Your task to perform on an android device: Go to display settings Image 0: 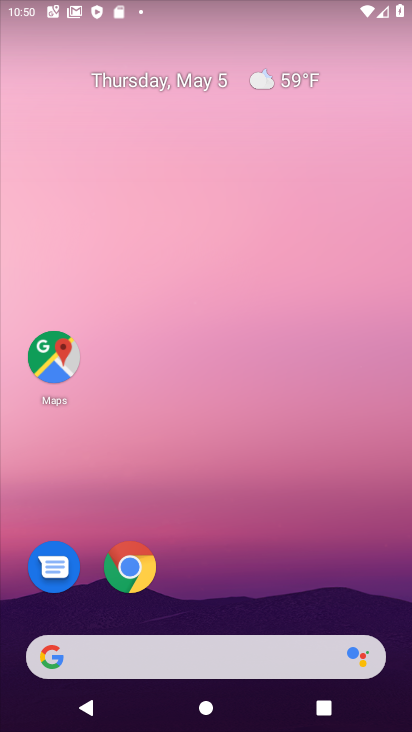
Step 0: drag from (192, 598) to (37, 89)
Your task to perform on an android device: Go to display settings Image 1: 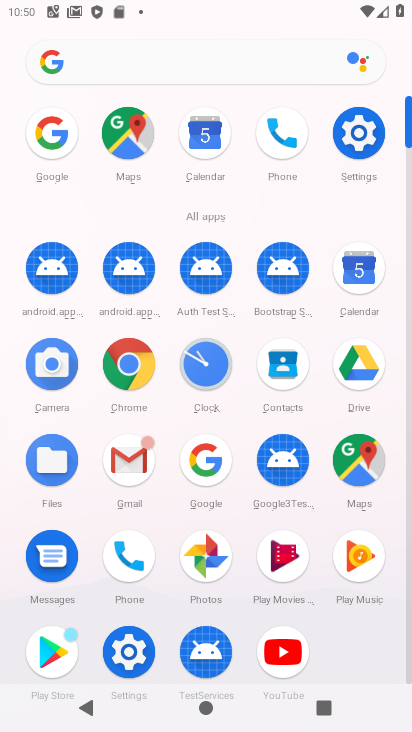
Step 1: click (128, 648)
Your task to perform on an android device: Go to display settings Image 2: 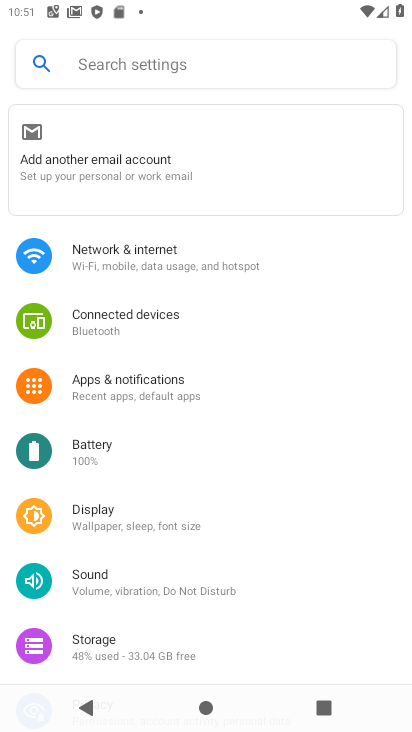
Step 2: click (104, 519)
Your task to perform on an android device: Go to display settings Image 3: 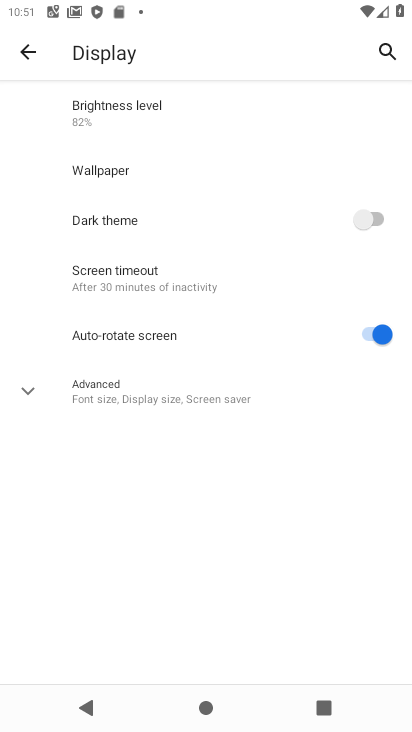
Step 3: click (28, 390)
Your task to perform on an android device: Go to display settings Image 4: 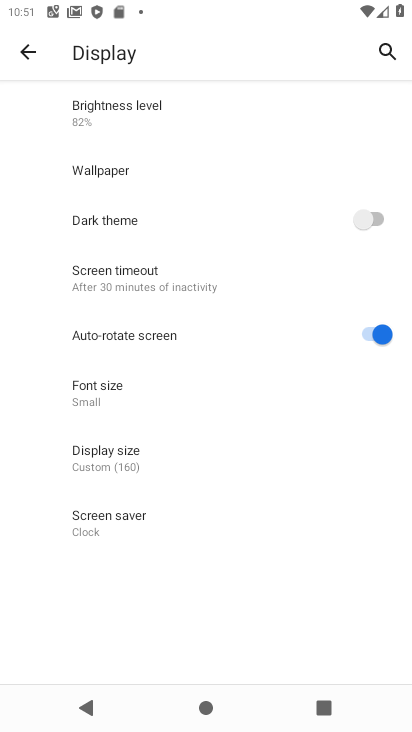
Step 4: task complete